Your task to perform on an android device: change notifications settings Image 0: 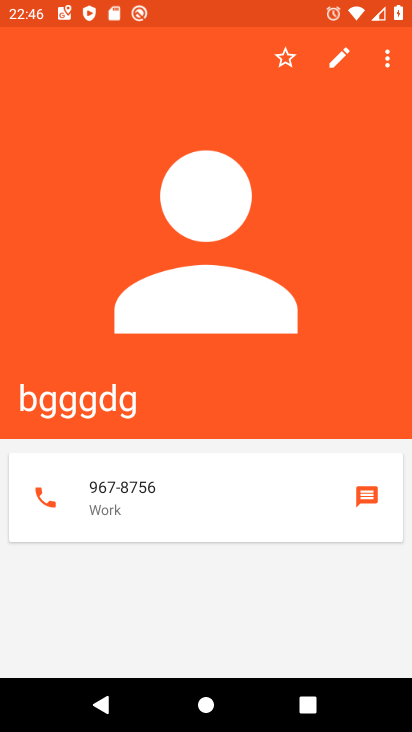
Step 0: press home button
Your task to perform on an android device: change notifications settings Image 1: 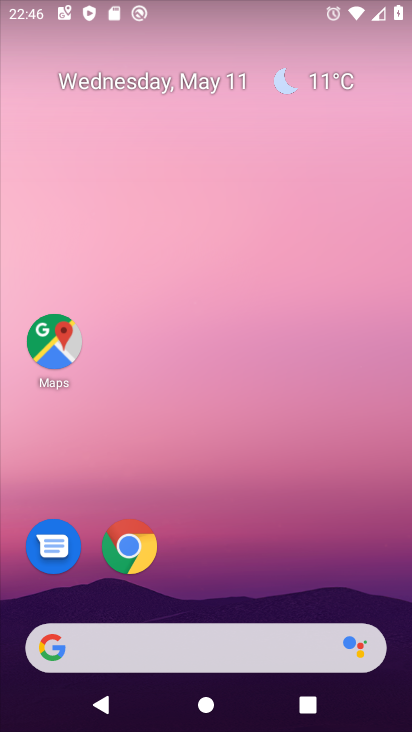
Step 1: drag from (400, 612) to (301, 218)
Your task to perform on an android device: change notifications settings Image 2: 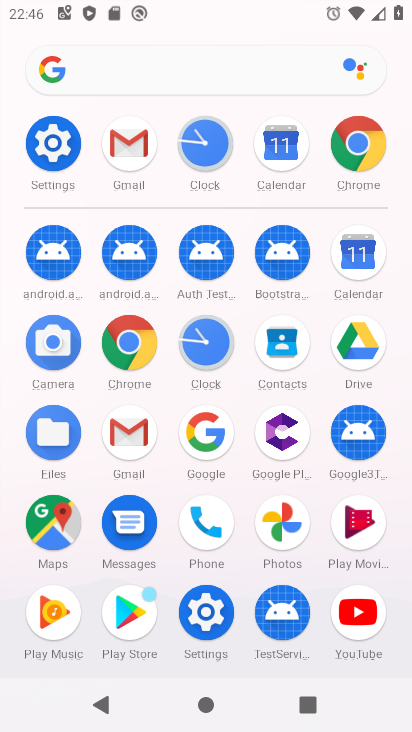
Step 2: click (206, 615)
Your task to perform on an android device: change notifications settings Image 3: 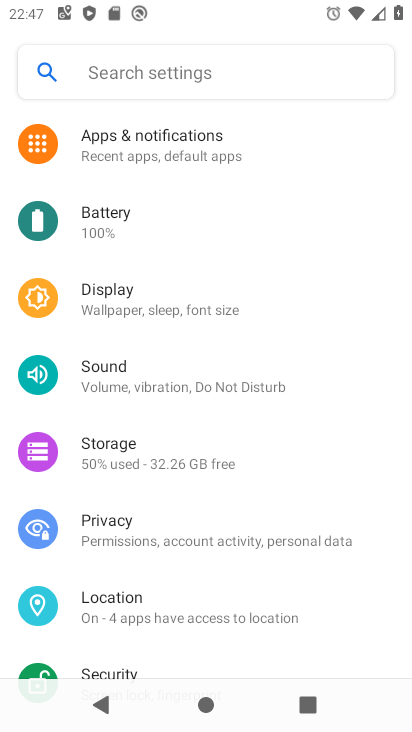
Step 3: click (142, 143)
Your task to perform on an android device: change notifications settings Image 4: 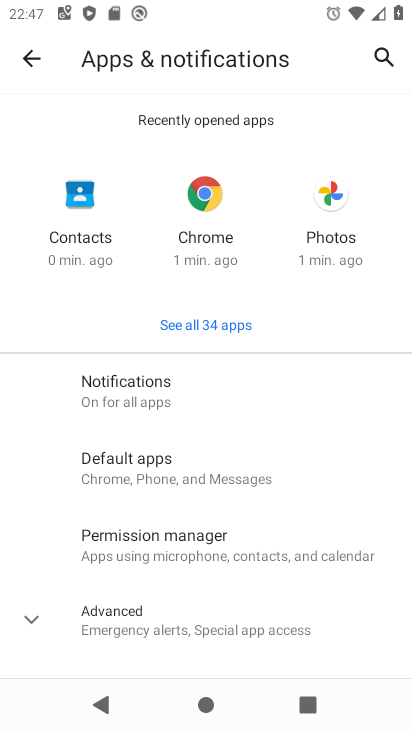
Step 4: click (132, 390)
Your task to perform on an android device: change notifications settings Image 5: 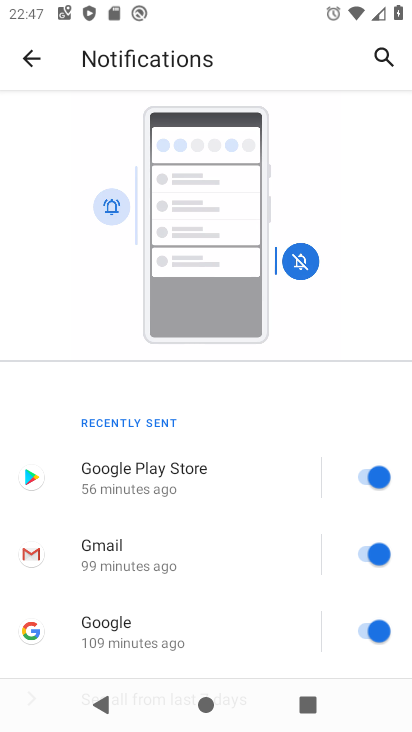
Step 5: drag from (280, 627) to (210, 205)
Your task to perform on an android device: change notifications settings Image 6: 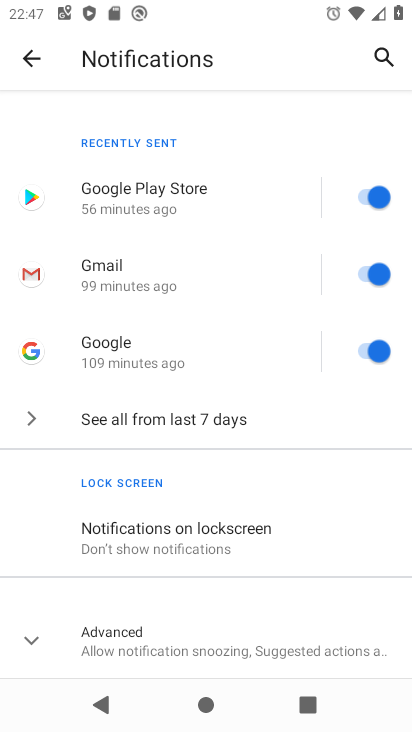
Step 6: click (27, 638)
Your task to perform on an android device: change notifications settings Image 7: 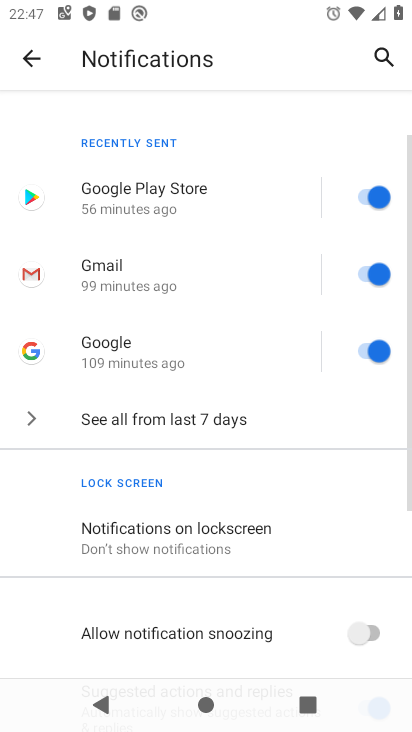
Step 7: task complete